Your task to perform on an android device: Open the calendar app, open the side menu, and click the "Day" option Image 0: 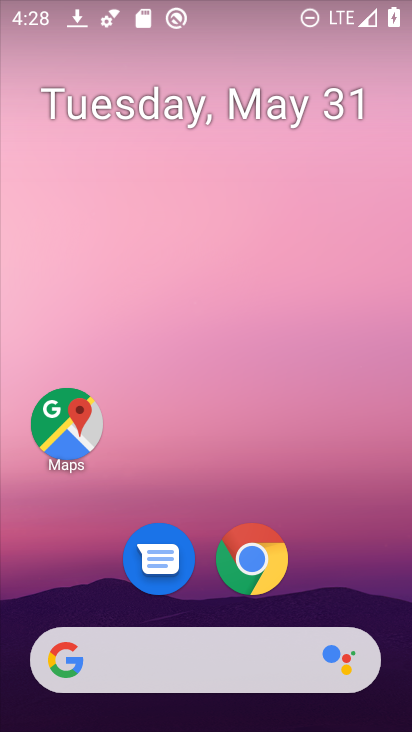
Step 0: drag from (210, 720) to (222, 188)
Your task to perform on an android device: Open the calendar app, open the side menu, and click the "Day" option Image 1: 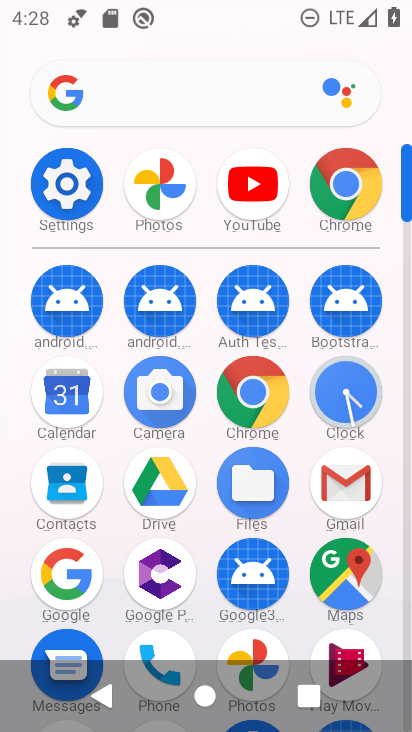
Step 1: click (70, 395)
Your task to perform on an android device: Open the calendar app, open the side menu, and click the "Day" option Image 2: 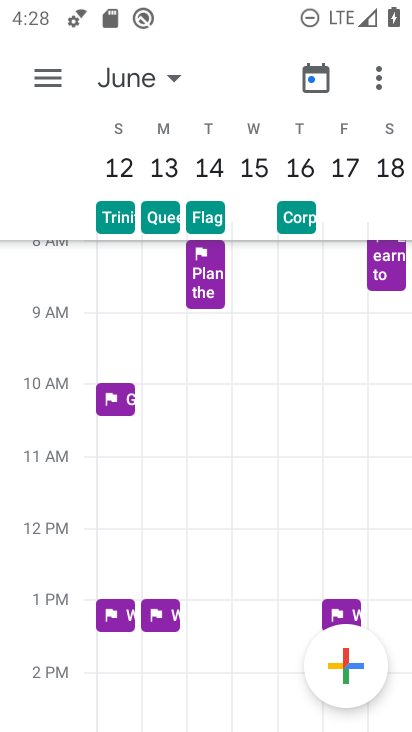
Step 2: click (49, 73)
Your task to perform on an android device: Open the calendar app, open the side menu, and click the "Day" option Image 3: 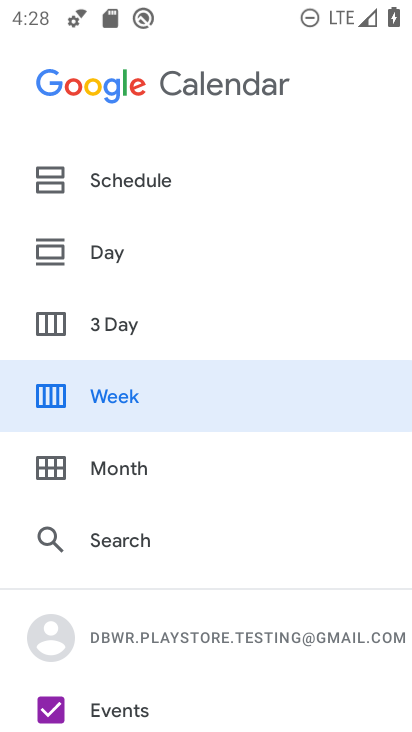
Step 3: click (110, 246)
Your task to perform on an android device: Open the calendar app, open the side menu, and click the "Day" option Image 4: 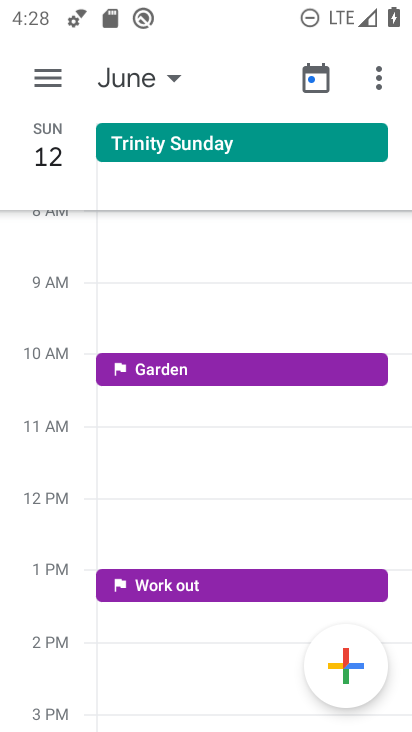
Step 4: task complete